Your task to perform on an android device: turn pop-ups off in chrome Image 0: 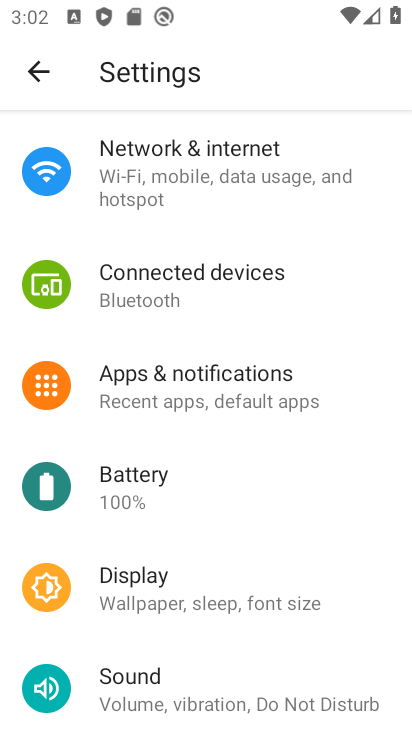
Step 0: press home button
Your task to perform on an android device: turn pop-ups off in chrome Image 1: 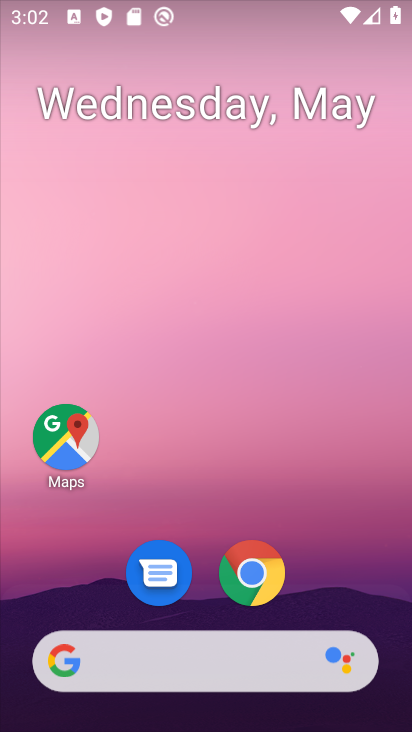
Step 1: click (261, 582)
Your task to perform on an android device: turn pop-ups off in chrome Image 2: 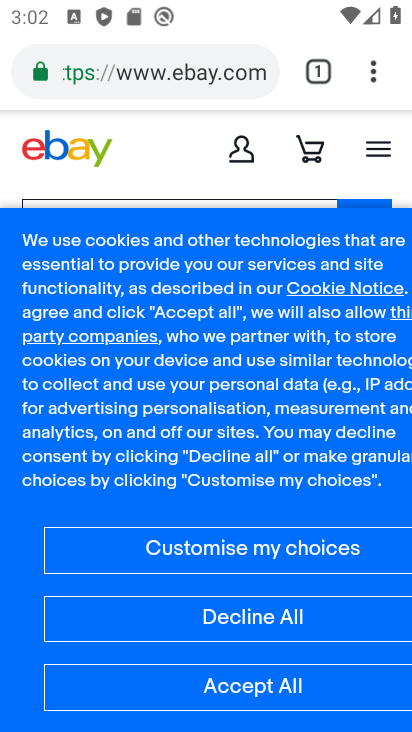
Step 2: drag from (367, 73) to (157, 578)
Your task to perform on an android device: turn pop-ups off in chrome Image 3: 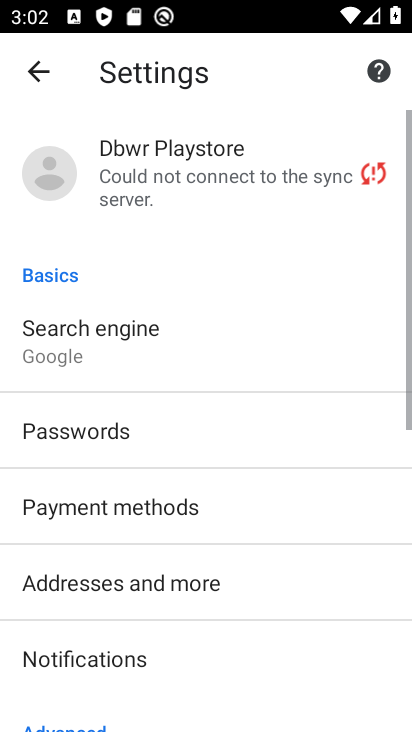
Step 3: drag from (170, 577) to (220, 287)
Your task to perform on an android device: turn pop-ups off in chrome Image 4: 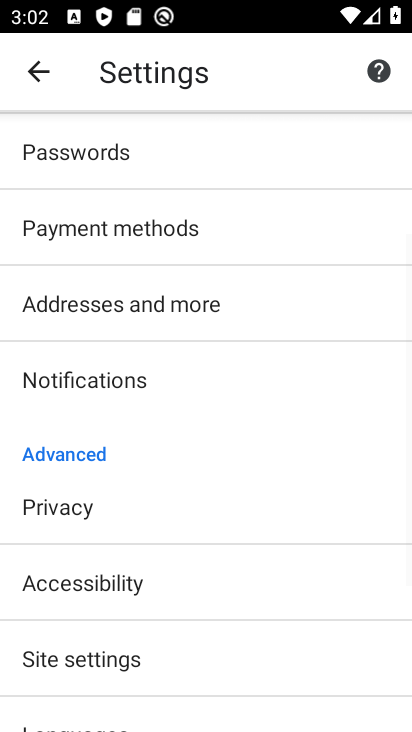
Step 4: drag from (181, 610) to (219, 409)
Your task to perform on an android device: turn pop-ups off in chrome Image 5: 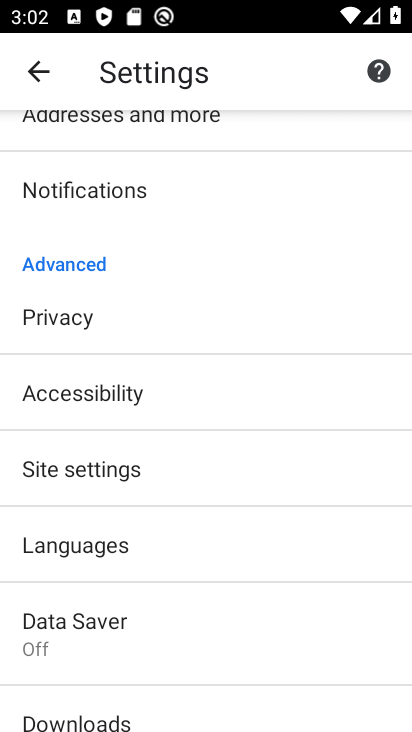
Step 5: click (181, 474)
Your task to perform on an android device: turn pop-ups off in chrome Image 6: 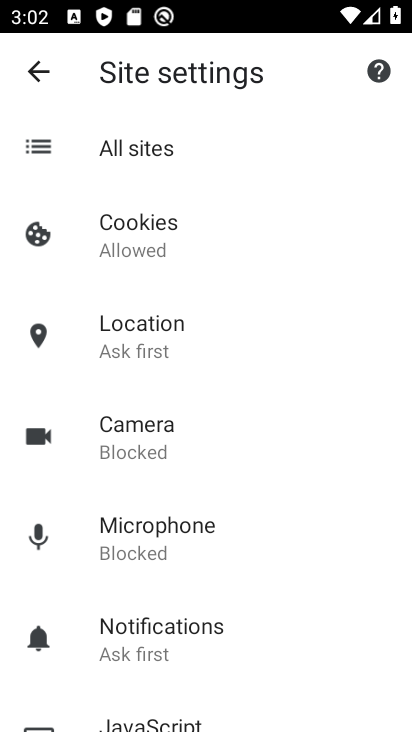
Step 6: drag from (242, 647) to (263, 383)
Your task to perform on an android device: turn pop-ups off in chrome Image 7: 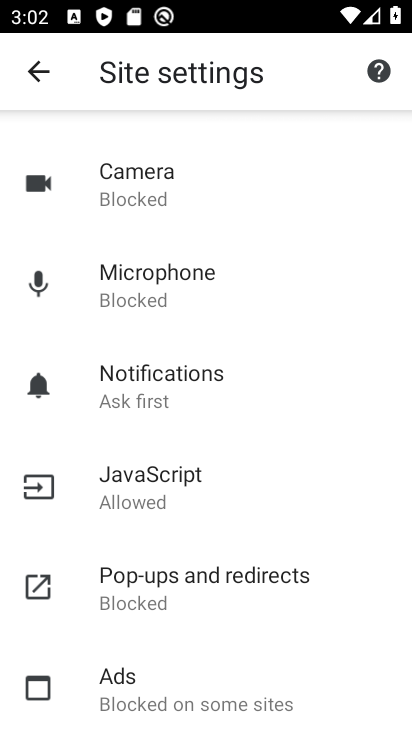
Step 7: click (160, 564)
Your task to perform on an android device: turn pop-ups off in chrome Image 8: 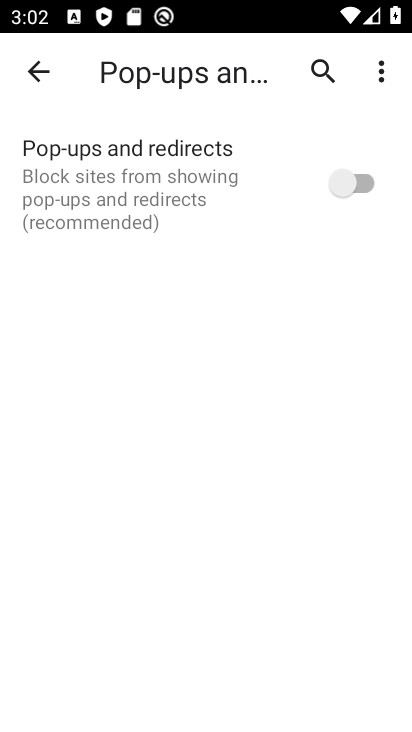
Step 8: task complete